Your task to perform on an android device: delete the emails in spam in the gmail app Image 0: 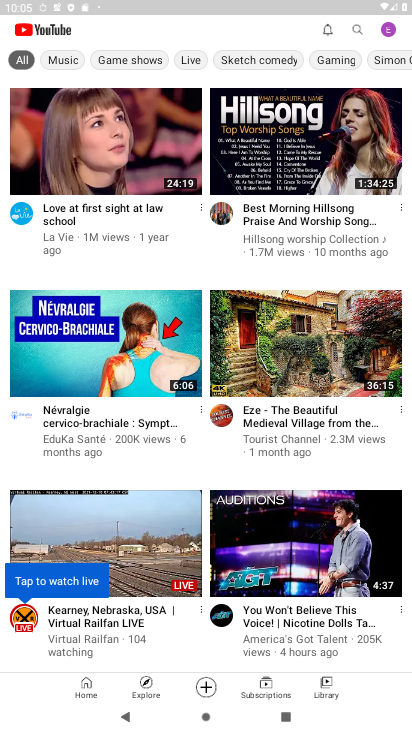
Step 0: press home button
Your task to perform on an android device: delete the emails in spam in the gmail app Image 1: 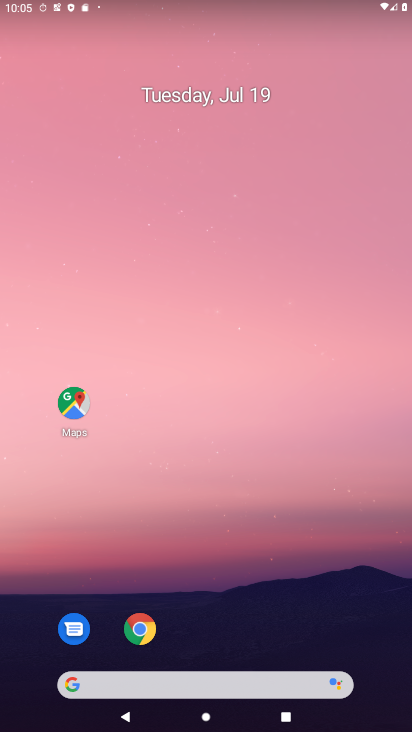
Step 1: drag from (204, 631) to (275, 2)
Your task to perform on an android device: delete the emails in spam in the gmail app Image 2: 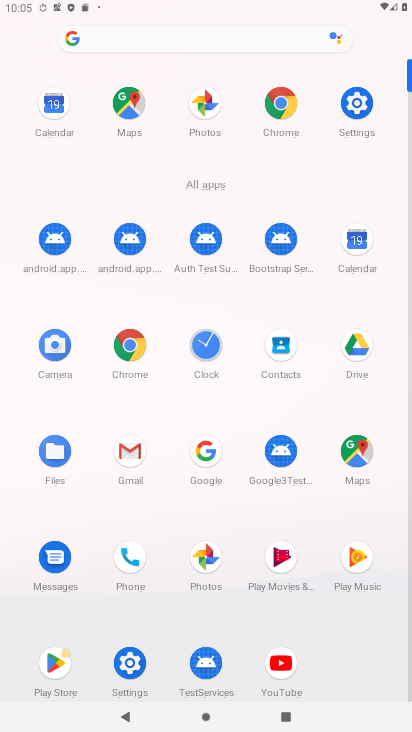
Step 2: click (135, 460)
Your task to perform on an android device: delete the emails in spam in the gmail app Image 3: 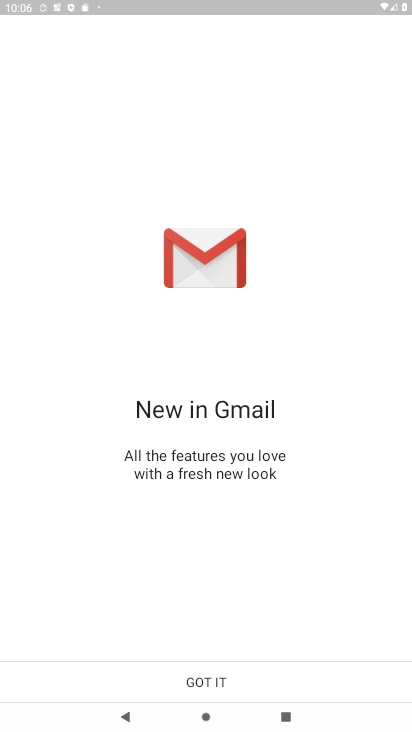
Step 3: click (224, 683)
Your task to perform on an android device: delete the emails in spam in the gmail app Image 4: 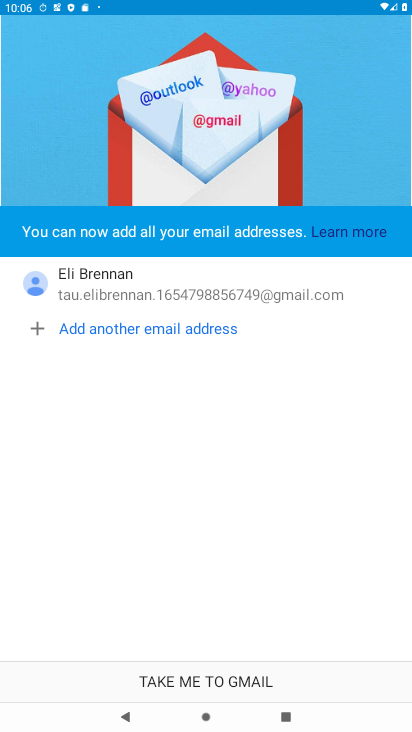
Step 4: click (224, 683)
Your task to perform on an android device: delete the emails in spam in the gmail app Image 5: 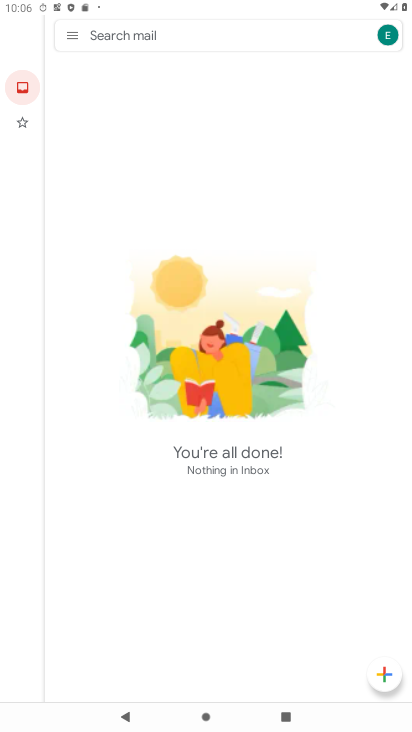
Step 5: task complete